Your task to perform on an android device: turn off picture-in-picture Image 0: 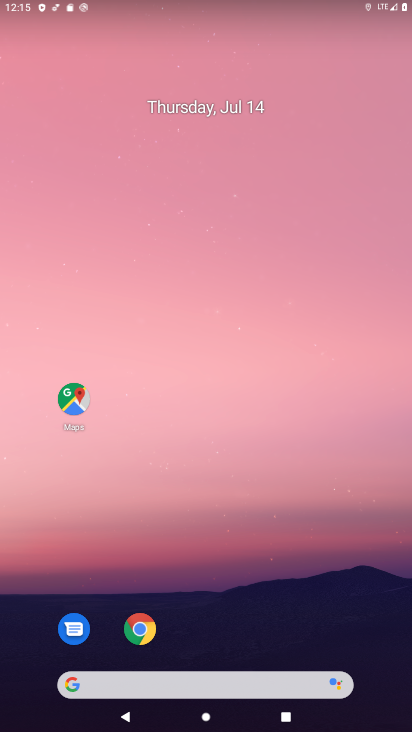
Step 0: drag from (285, 545) to (208, 21)
Your task to perform on an android device: turn off picture-in-picture Image 1: 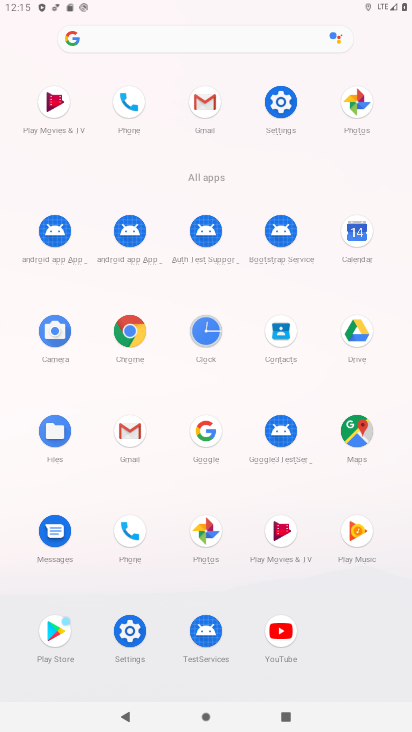
Step 1: click (123, 327)
Your task to perform on an android device: turn off picture-in-picture Image 2: 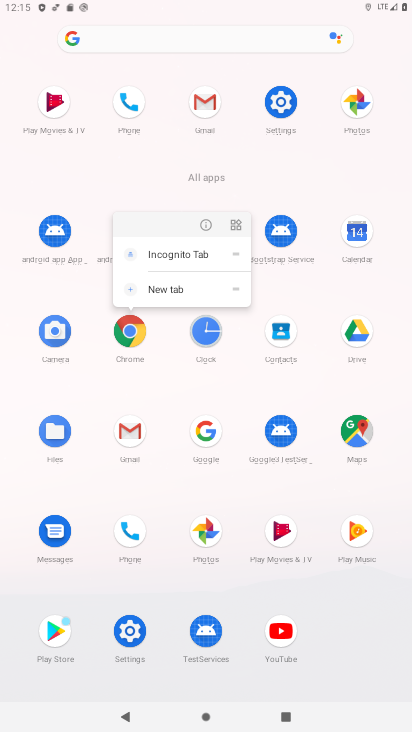
Step 2: click (207, 227)
Your task to perform on an android device: turn off picture-in-picture Image 3: 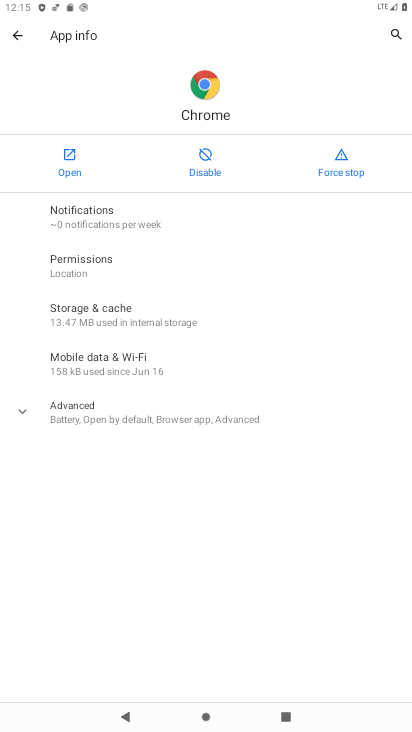
Step 3: click (148, 410)
Your task to perform on an android device: turn off picture-in-picture Image 4: 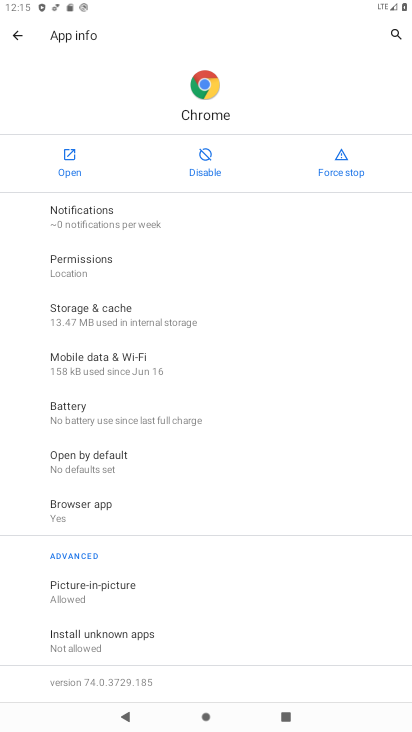
Step 4: drag from (196, 583) to (143, 97)
Your task to perform on an android device: turn off picture-in-picture Image 5: 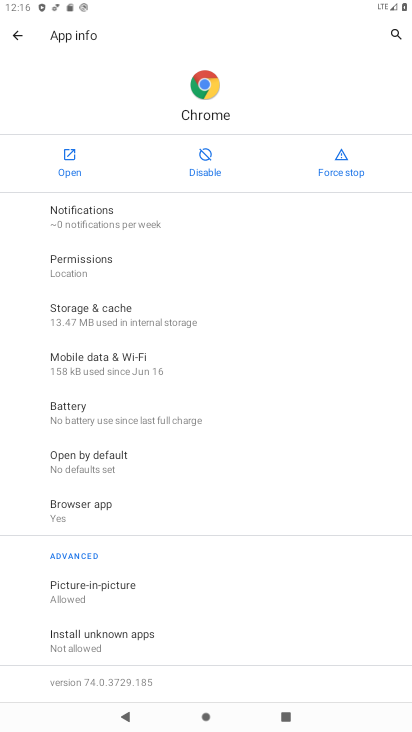
Step 5: click (96, 587)
Your task to perform on an android device: turn off picture-in-picture Image 6: 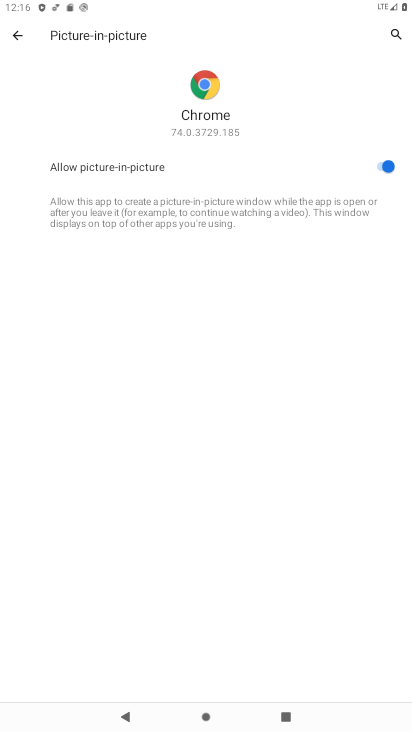
Step 6: click (376, 170)
Your task to perform on an android device: turn off picture-in-picture Image 7: 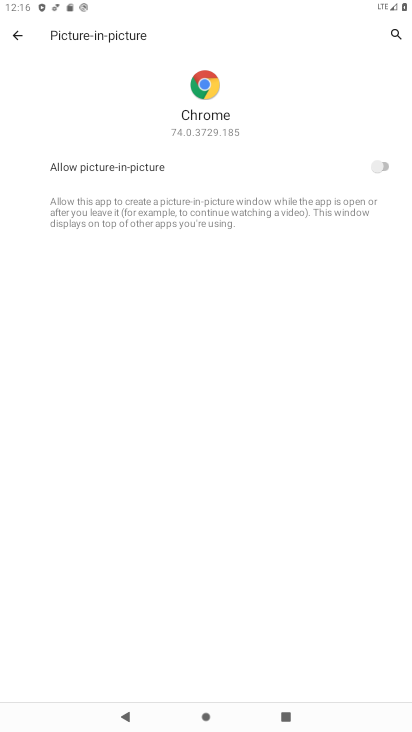
Step 7: task complete